Your task to perform on an android device: Open internet settings Image 0: 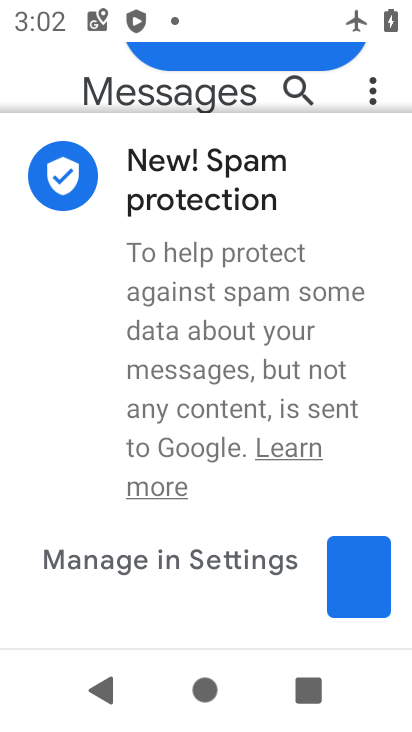
Step 0: press home button
Your task to perform on an android device: Open internet settings Image 1: 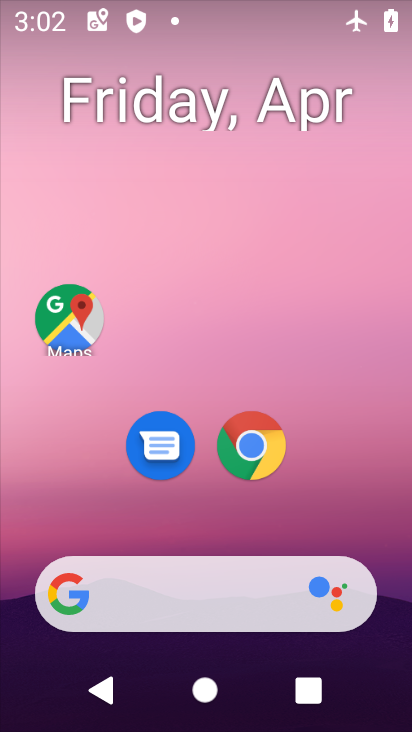
Step 1: drag from (302, 445) to (161, 78)
Your task to perform on an android device: Open internet settings Image 2: 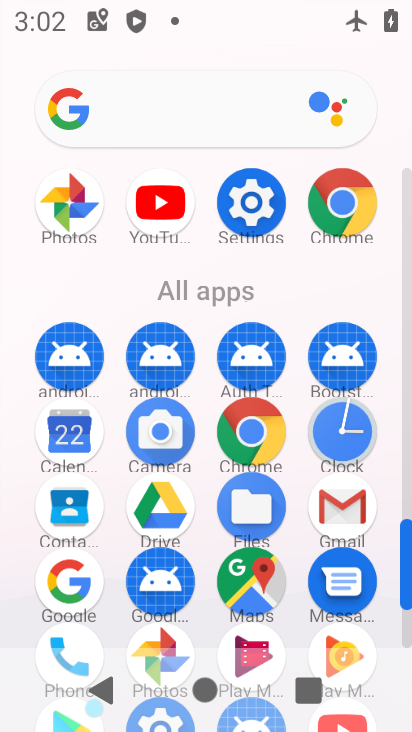
Step 2: click (247, 204)
Your task to perform on an android device: Open internet settings Image 3: 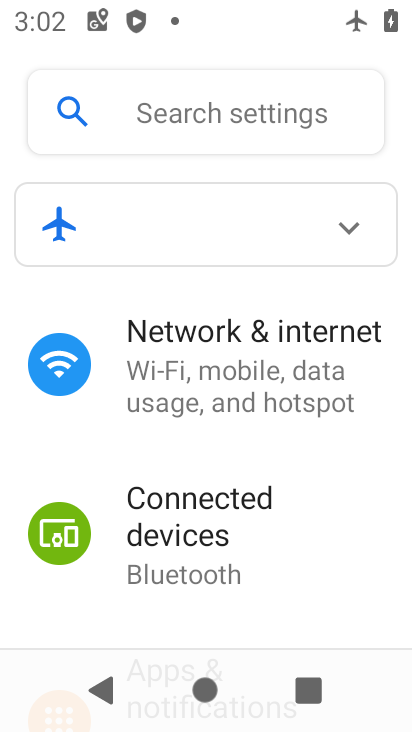
Step 3: click (247, 367)
Your task to perform on an android device: Open internet settings Image 4: 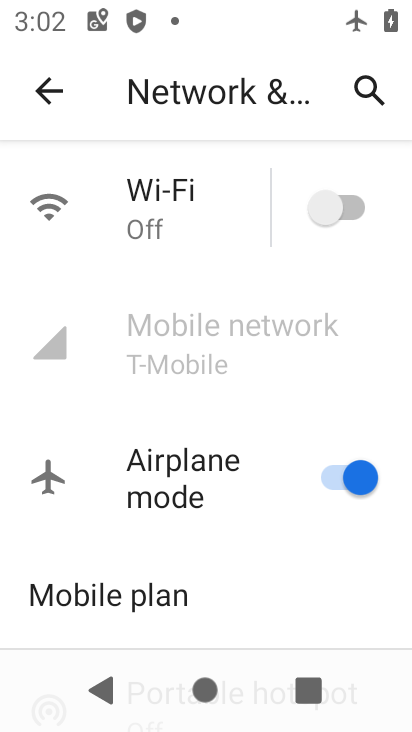
Step 4: task complete